Your task to perform on an android device: open app "DoorDash - Dasher" (install if not already installed) Image 0: 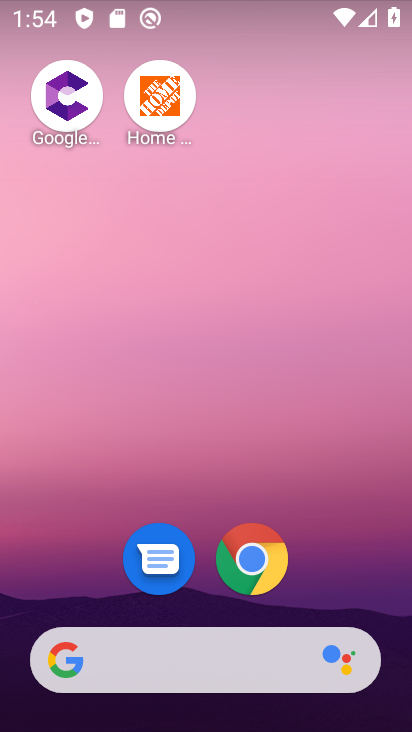
Step 0: drag from (159, 392) to (233, 121)
Your task to perform on an android device: open app "DoorDash - Dasher" (install if not already installed) Image 1: 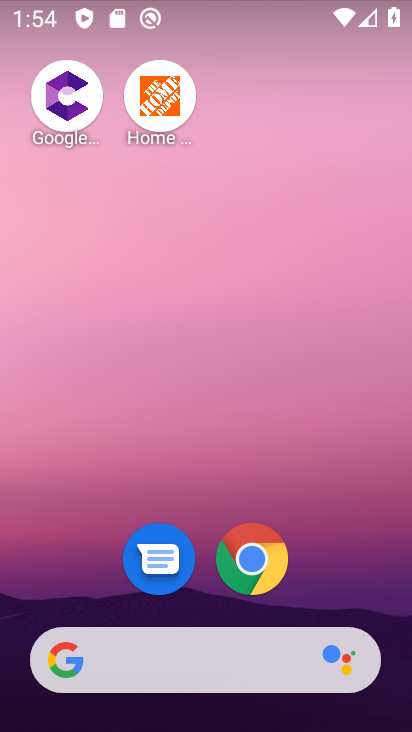
Step 1: drag from (114, 483) to (241, 93)
Your task to perform on an android device: open app "DoorDash - Dasher" (install if not already installed) Image 2: 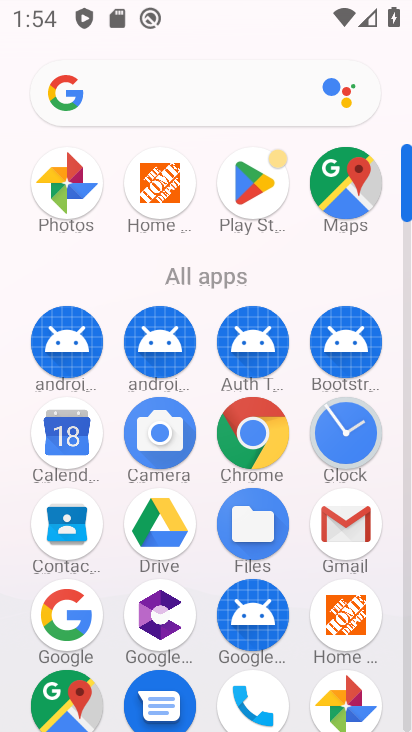
Step 2: click (250, 185)
Your task to perform on an android device: open app "DoorDash - Dasher" (install if not already installed) Image 3: 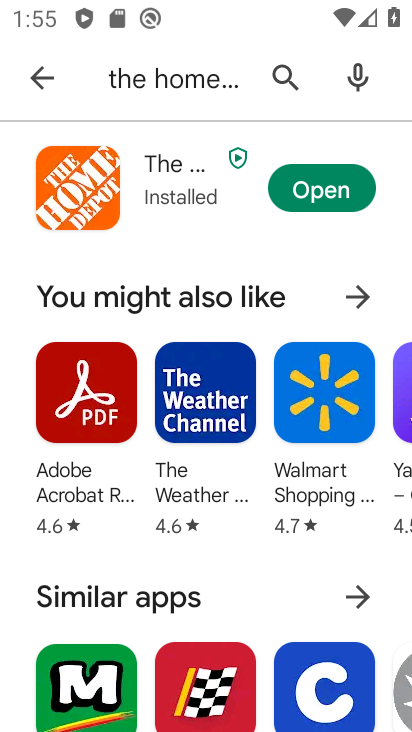
Step 3: click (288, 77)
Your task to perform on an android device: open app "DoorDash - Dasher" (install if not already installed) Image 4: 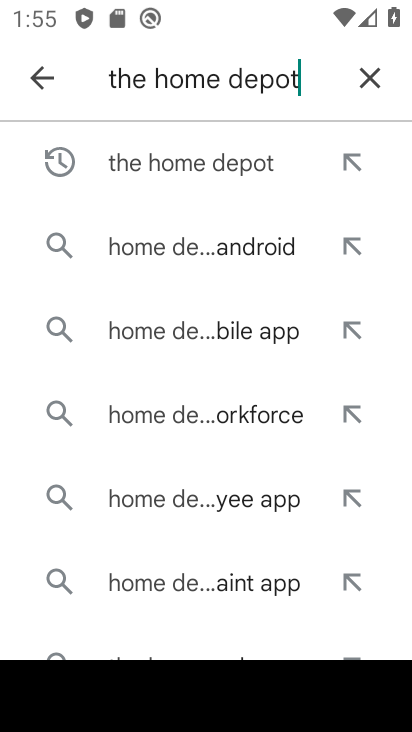
Step 4: click (367, 76)
Your task to perform on an android device: open app "DoorDash - Dasher" (install if not already installed) Image 5: 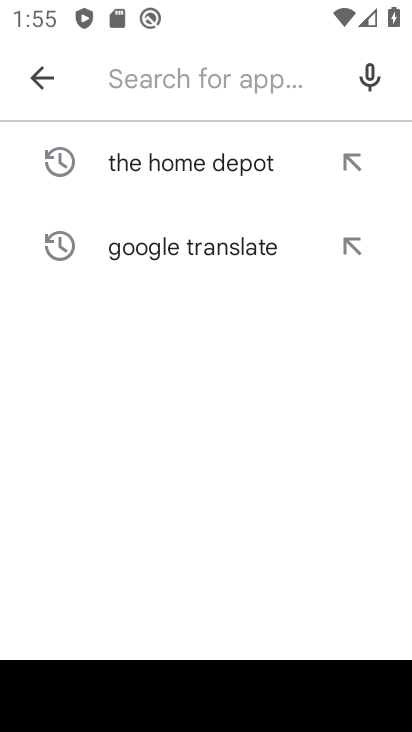
Step 5: type "door dash"
Your task to perform on an android device: open app "DoorDash - Dasher" (install if not already installed) Image 6: 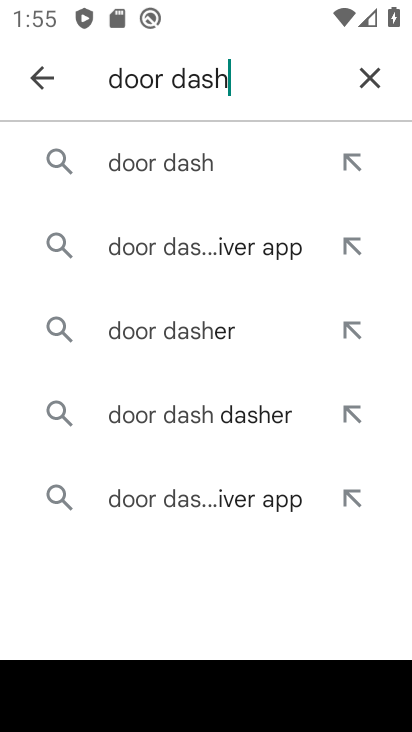
Step 6: click (174, 165)
Your task to perform on an android device: open app "DoorDash - Dasher" (install if not already installed) Image 7: 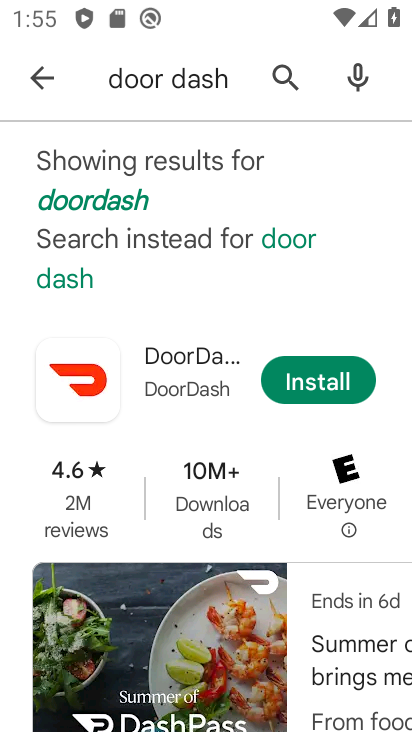
Step 7: click (345, 375)
Your task to perform on an android device: open app "DoorDash - Dasher" (install if not already installed) Image 8: 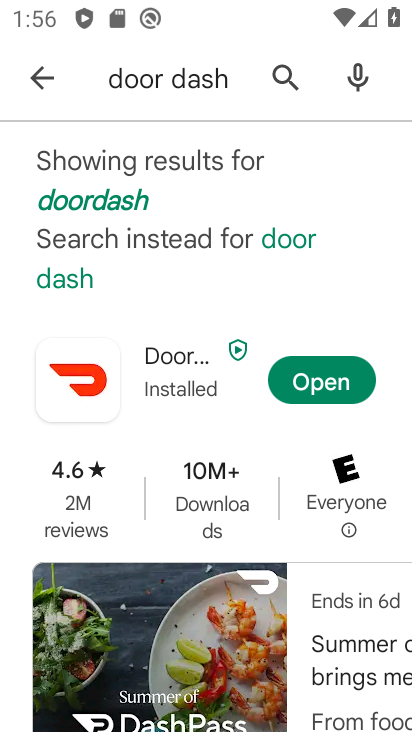
Step 8: click (292, 385)
Your task to perform on an android device: open app "DoorDash - Dasher" (install if not already installed) Image 9: 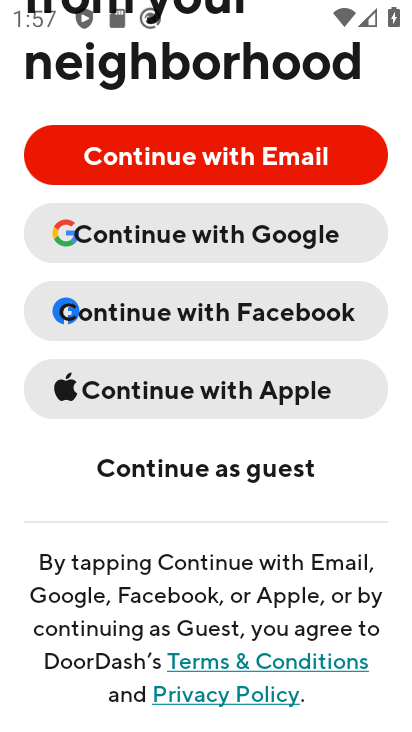
Step 9: task complete